Your task to perform on an android device: change your default location settings in chrome Image 0: 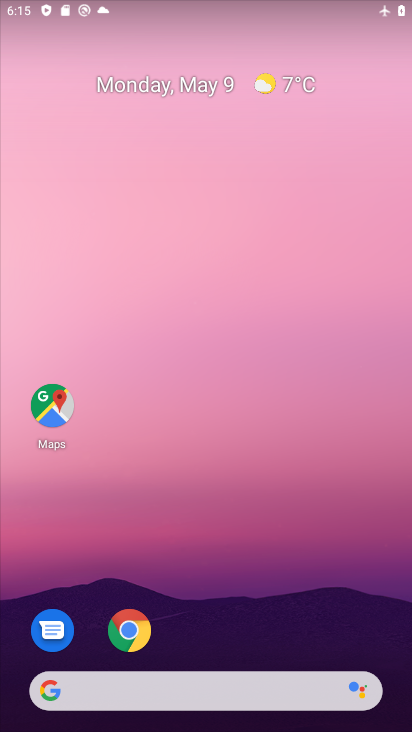
Step 0: drag from (251, 620) to (236, 148)
Your task to perform on an android device: change your default location settings in chrome Image 1: 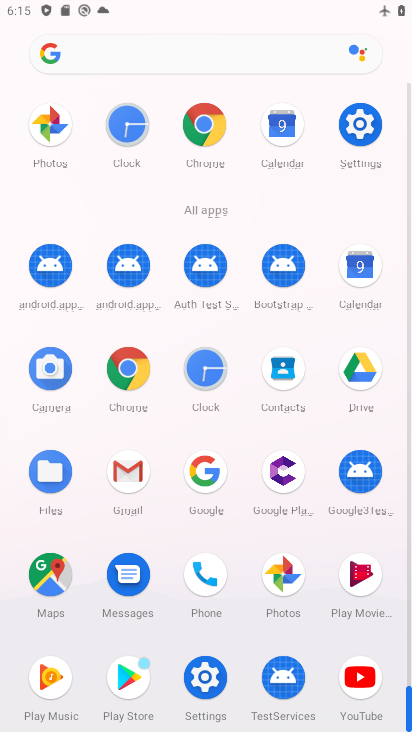
Step 1: click (195, 684)
Your task to perform on an android device: change your default location settings in chrome Image 2: 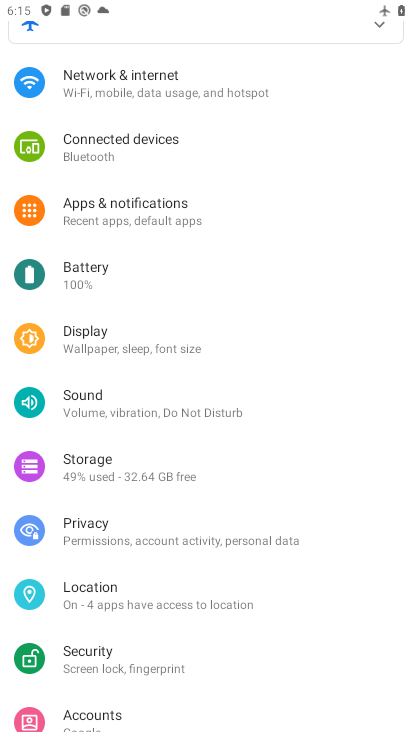
Step 2: press back button
Your task to perform on an android device: change your default location settings in chrome Image 3: 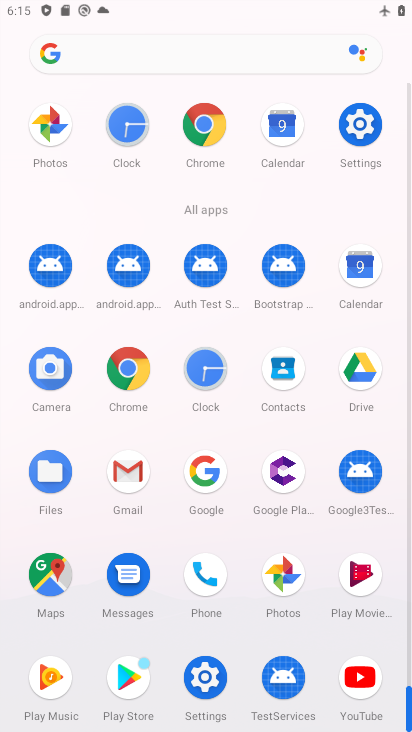
Step 3: click (218, 145)
Your task to perform on an android device: change your default location settings in chrome Image 4: 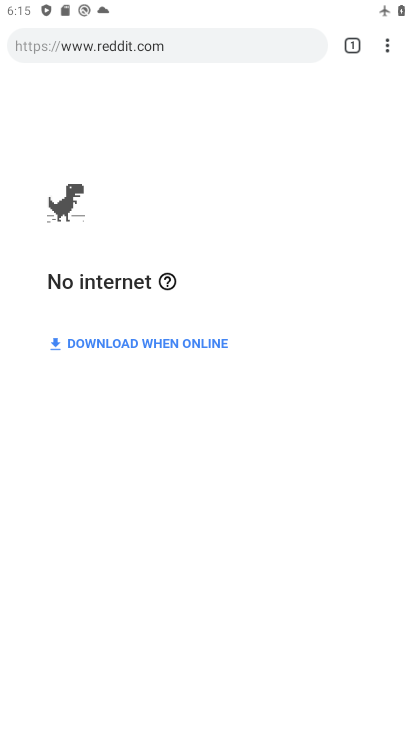
Step 4: click (387, 49)
Your task to perform on an android device: change your default location settings in chrome Image 5: 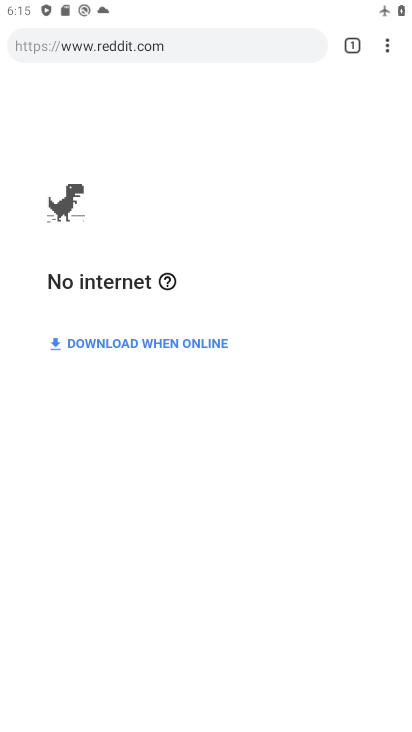
Step 5: click (395, 42)
Your task to perform on an android device: change your default location settings in chrome Image 6: 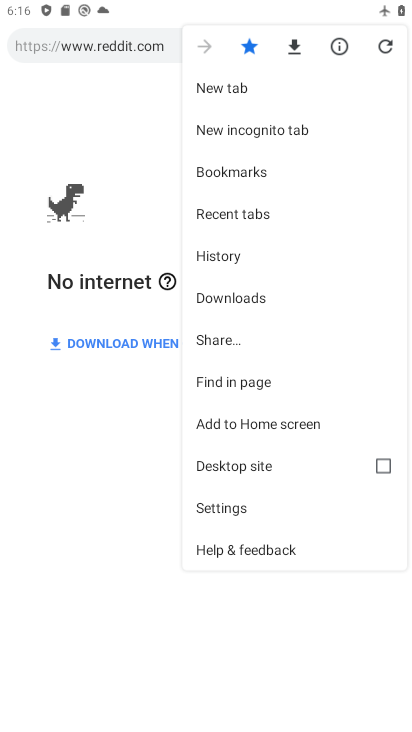
Step 6: click (238, 506)
Your task to perform on an android device: change your default location settings in chrome Image 7: 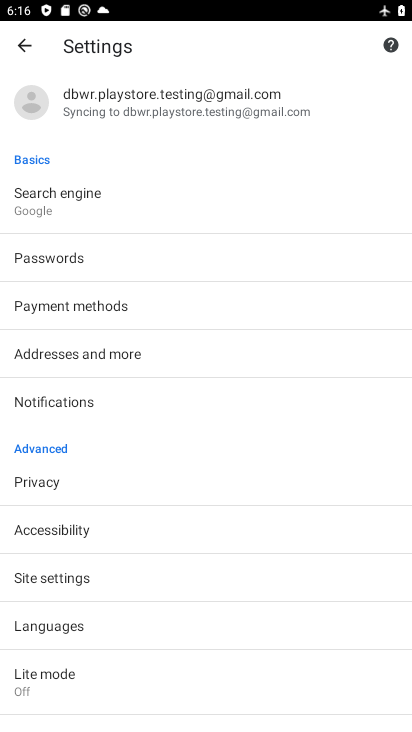
Step 7: click (58, 581)
Your task to perform on an android device: change your default location settings in chrome Image 8: 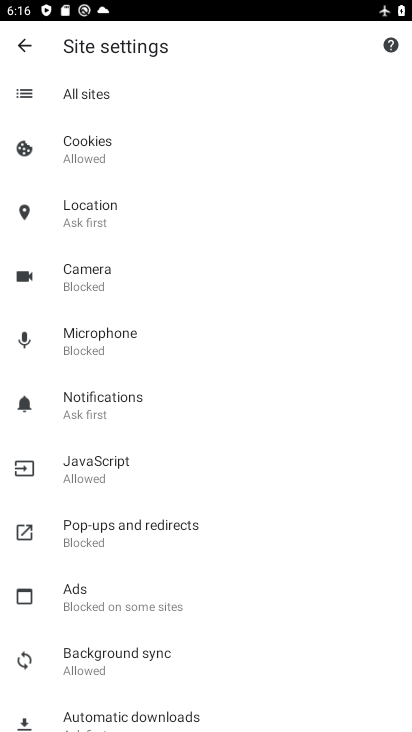
Step 8: click (112, 226)
Your task to perform on an android device: change your default location settings in chrome Image 9: 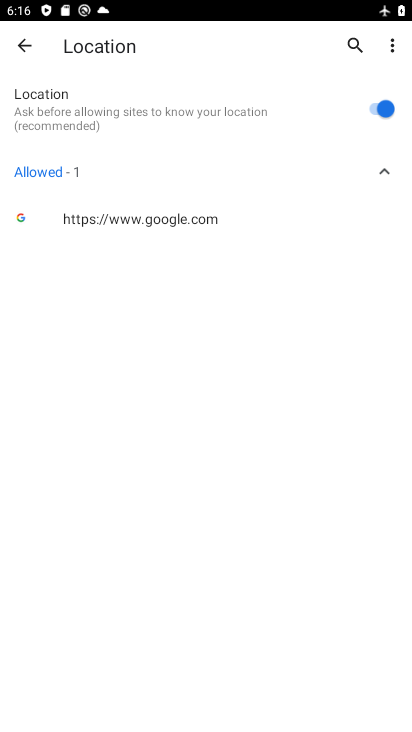
Step 9: click (382, 110)
Your task to perform on an android device: change your default location settings in chrome Image 10: 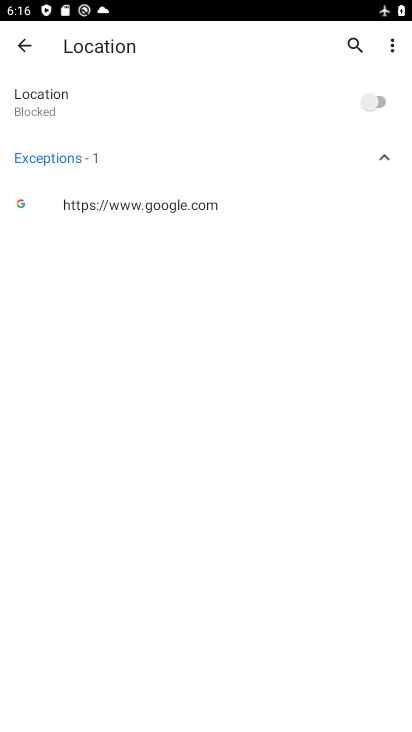
Step 10: task complete